Your task to perform on an android device: set an alarm Image 0: 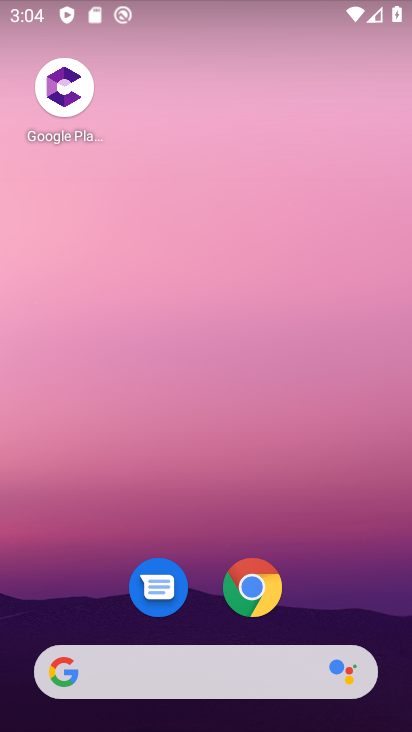
Step 0: drag from (203, 618) to (183, 94)
Your task to perform on an android device: set an alarm Image 1: 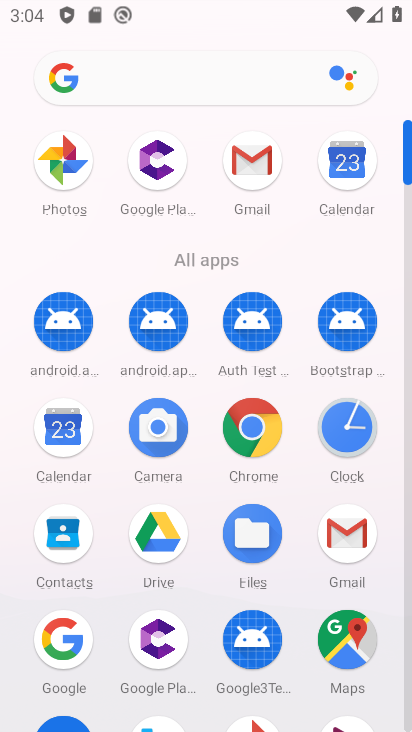
Step 1: drag from (208, 545) to (222, 62)
Your task to perform on an android device: set an alarm Image 2: 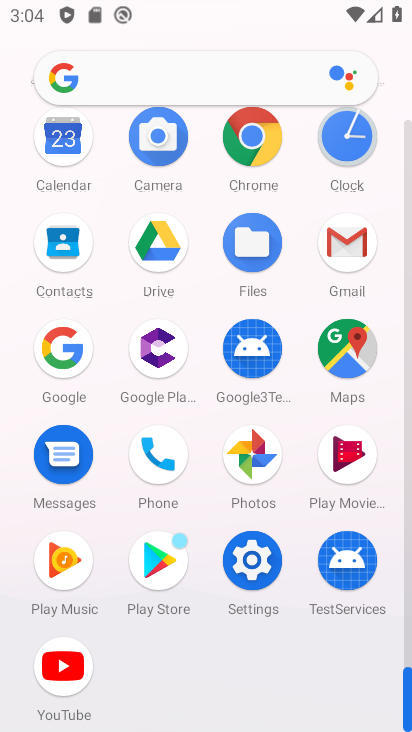
Step 2: drag from (202, 259) to (206, 600)
Your task to perform on an android device: set an alarm Image 3: 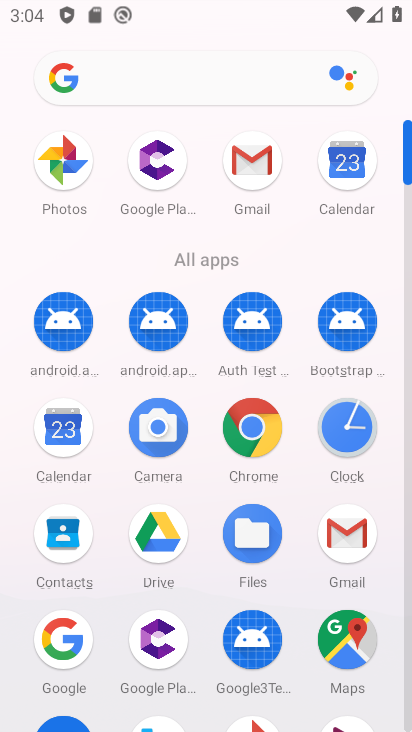
Step 3: click (345, 436)
Your task to perform on an android device: set an alarm Image 4: 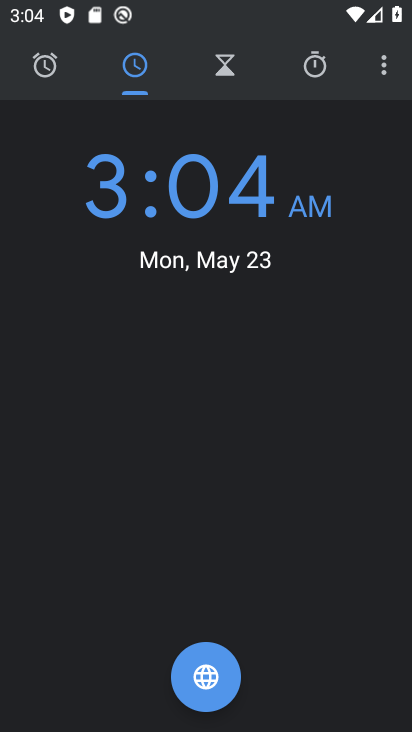
Step 4: click (47, 73)
Your task to perform on an android device: set an alarm Image 5: 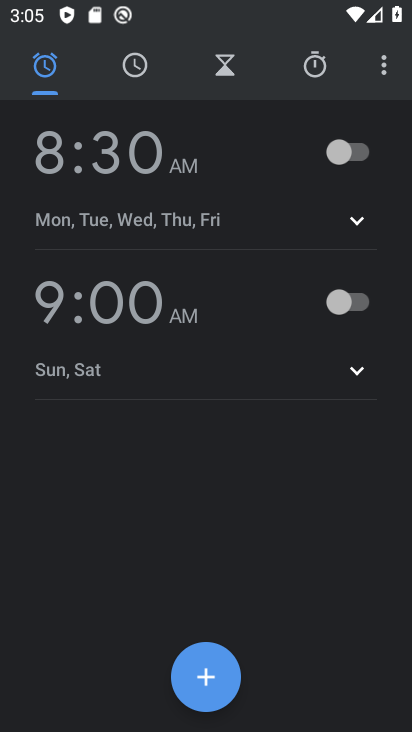
Step 5: task complete